Your task to perform on an android device: Open notification settings Image 0: 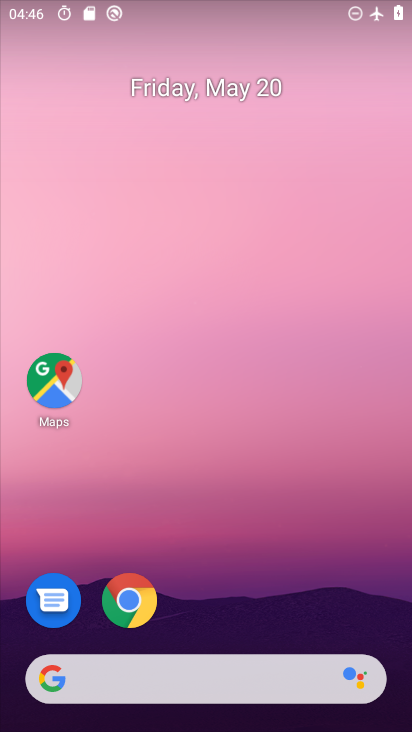
Step 0: drag from (222, 586) to (301, 37)
Your task to perform on an android device: Open notification settings Image 1: 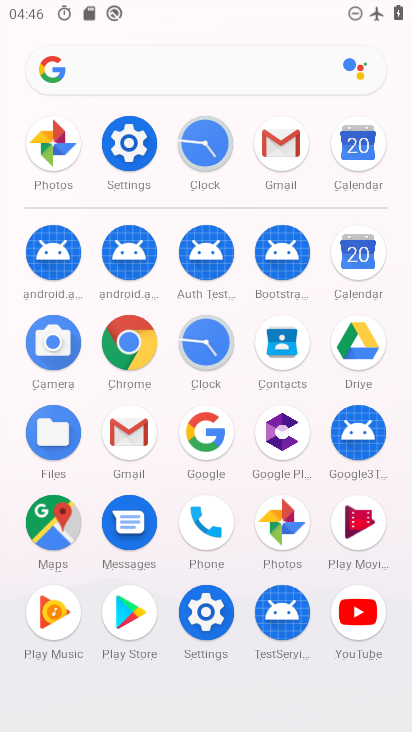
Step 1: click (147, 146)
Your task to perform on an android device: Open notification settings Image 2: 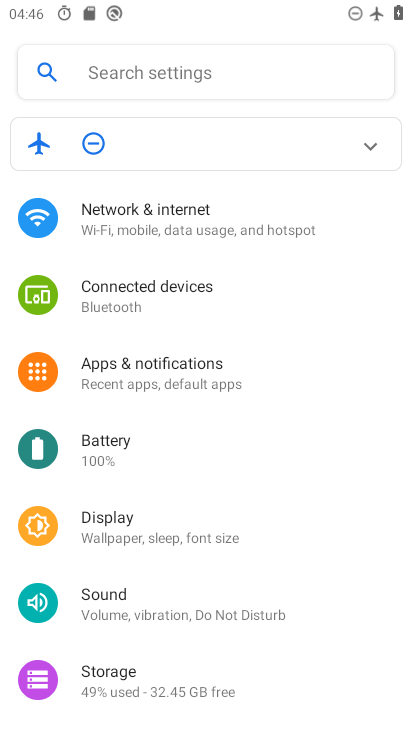
Step 2: click (182, 378)
Your task to perform on an android device: Open notification settings Image 3: 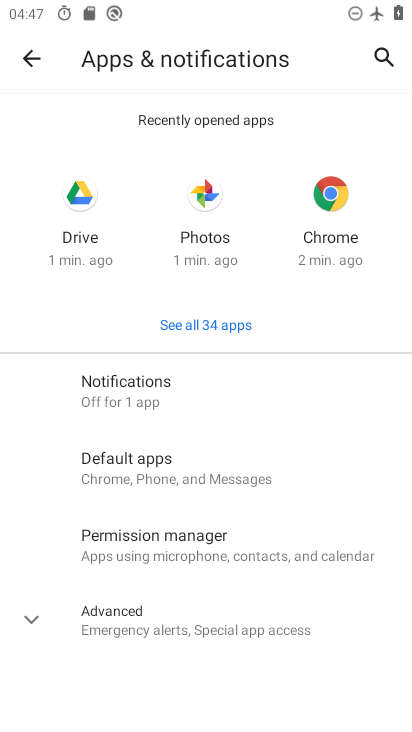
Step 3: task complete